Your task to perform on an android device: change the clock display to digital Image 0: 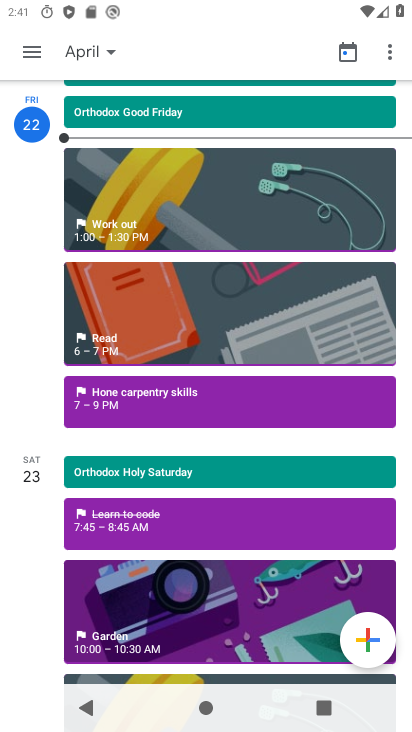
Step 0: click (31, 48)
Your task to perform on an android device: change the clock display to digital Image 1: 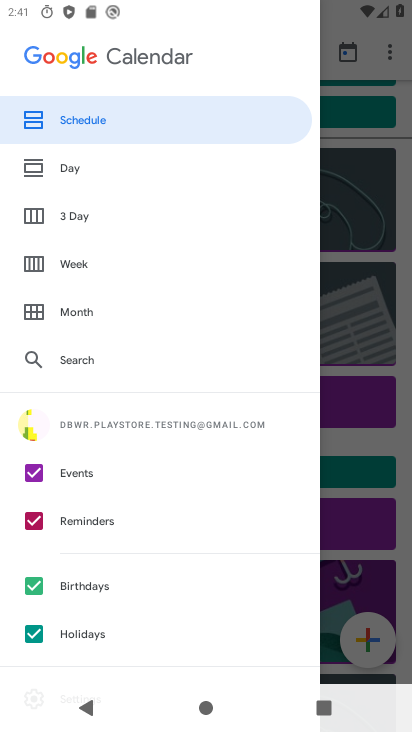
Step 1: press home button
Your task to perform on an android device: change the clock display to digital Image 2: 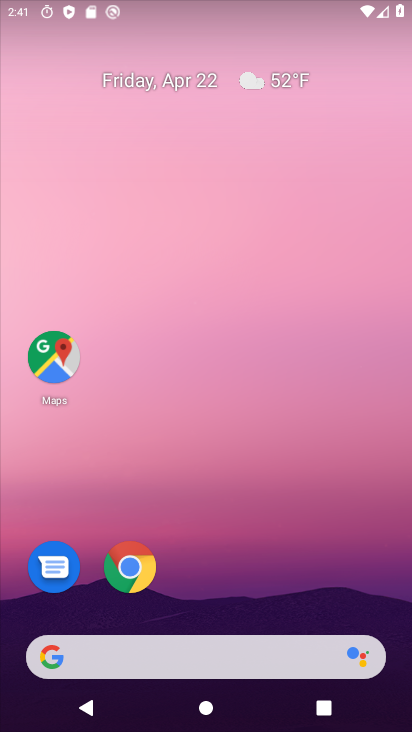
Step 2: drag from (228, 515) to (212, 105)
Your task to perform on an android device: change the clock display to digital Image 3: 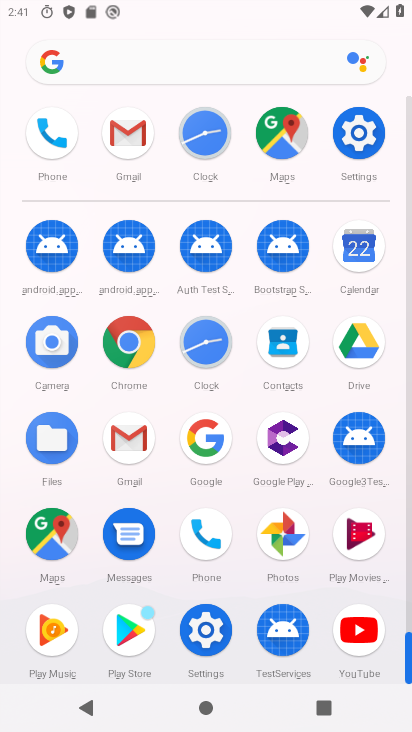
Step 3: click (203, 345)
Your task to perform on an android device: change the clock display to digital Image 4: 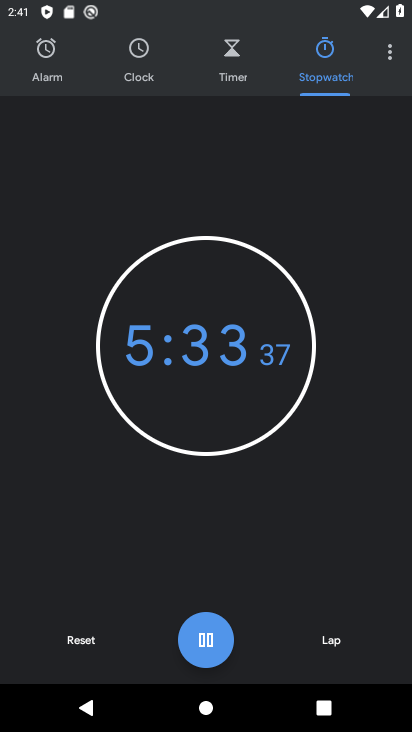
Step 4: click (380, 54)
Your task to perform on an android device: change the clock display to digital Image 5: 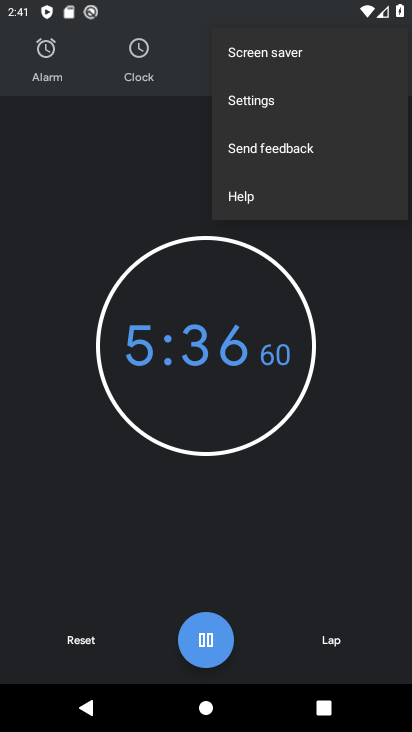
Step 5: click (250, 91)
Your task to perform on an android device: change the clock display to digital Image 6: 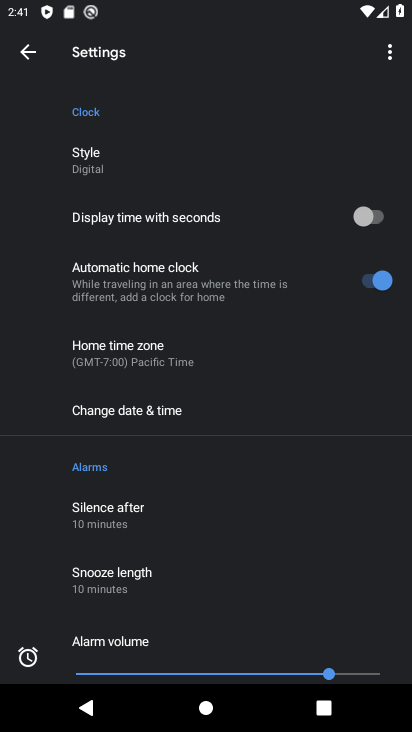
Step 6: click (178, 157)
Your task to perform on an android device: change the clock display to digital Image 7: 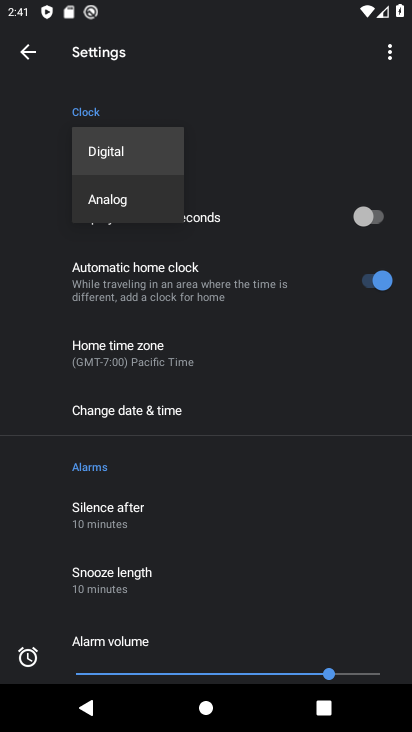
Step 7: task complete